Your task to perform on an android device: Is it going to rain this weekend? Image 0: 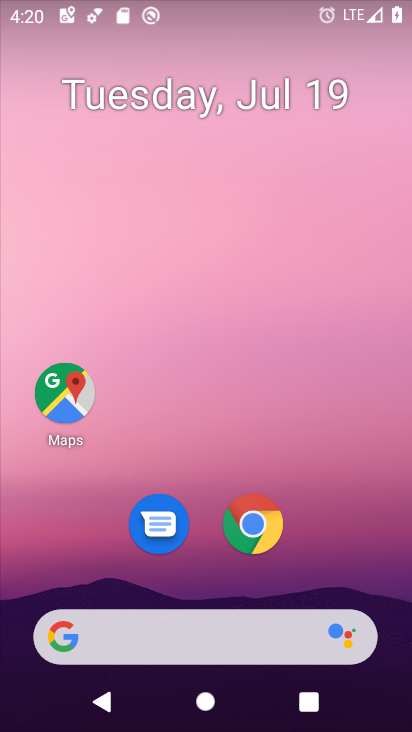
Step 0: click (199, 643)
Your task to perform on an android device: Is it going to rain this weekend? Image 1: 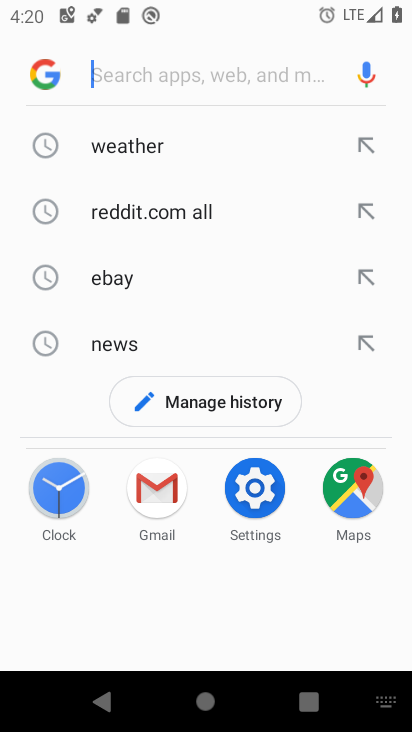
Step 1: click (132, 139)
Your task to perform on an android device: Is it going to rain this weekend? Image 2: 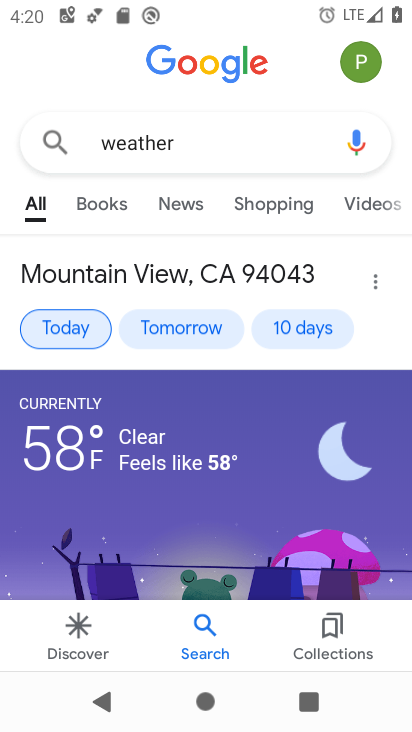
Step 2: click (98, 325)
Your task to perform on an android device: Is it going to rain this weekend? Image 3: 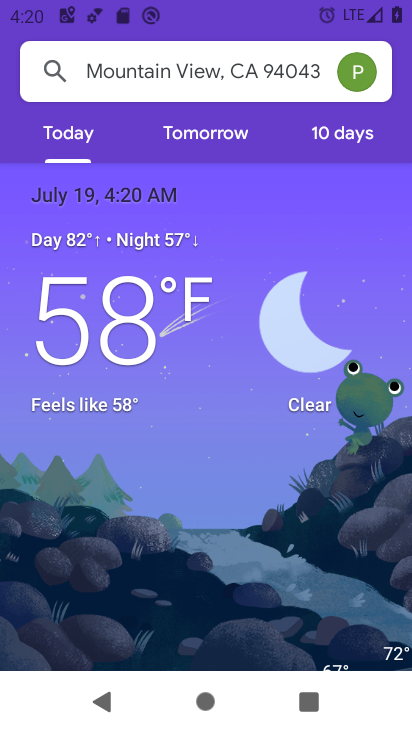
Step 3: click (336, 139)
Your task to perform on an android device: Is it going to rain this weekend? Image 4: 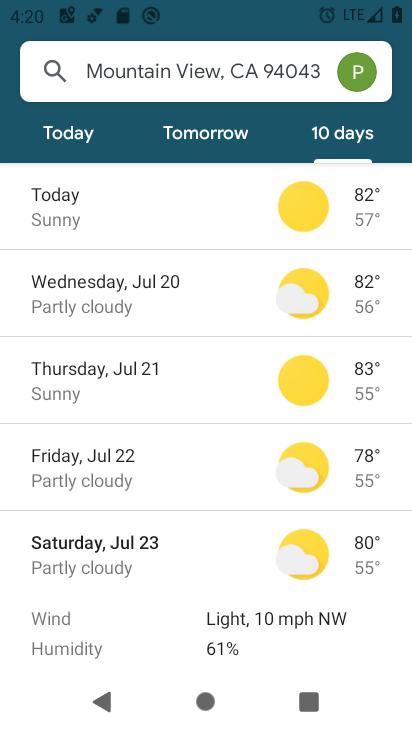
Step 4: task complete